Your task to perform on an android device: Search for flights from NYC to Buenos aires Image 0: 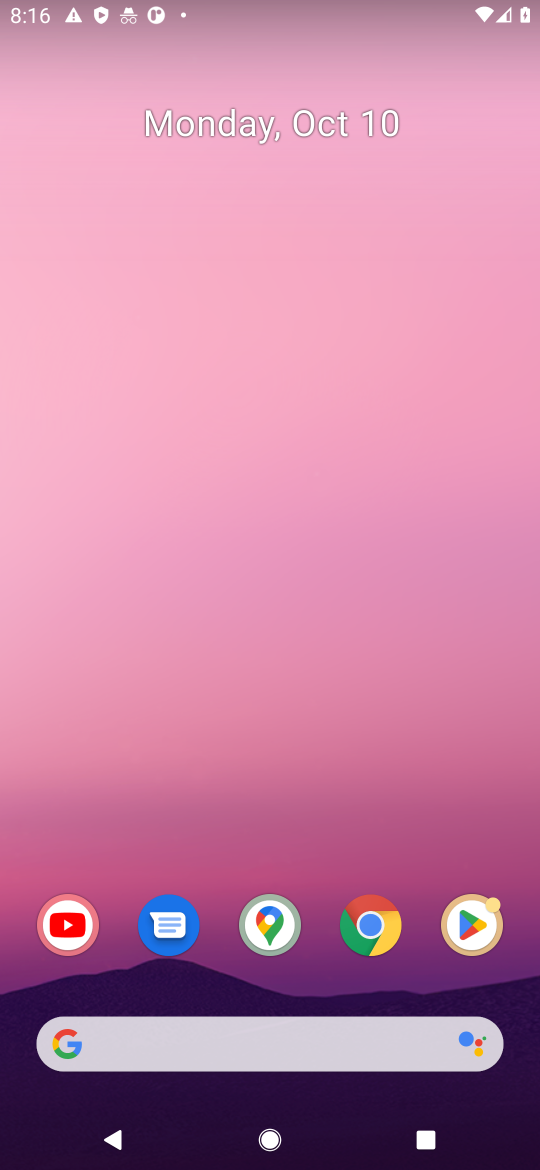
Step 0: drag from (315, 999) to (255, 89)
Your task to perform on an android device: Search for flights from NYC to Buenos aires Image 1: 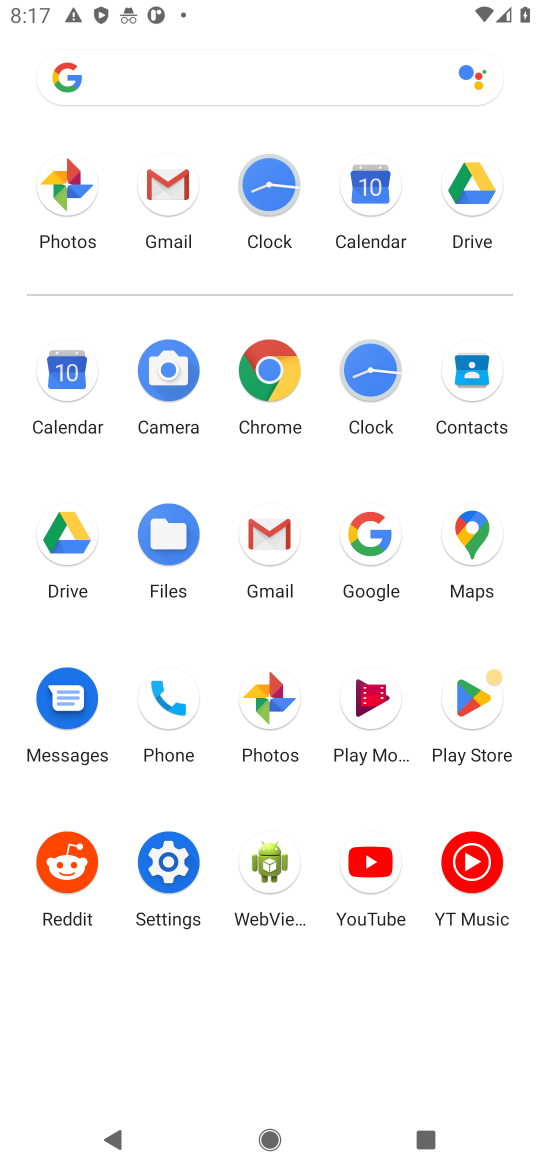
Step 1: click (272, 367)
Your task to perform on an android device: Search for flights from NYC to Buenos aires Image 2: 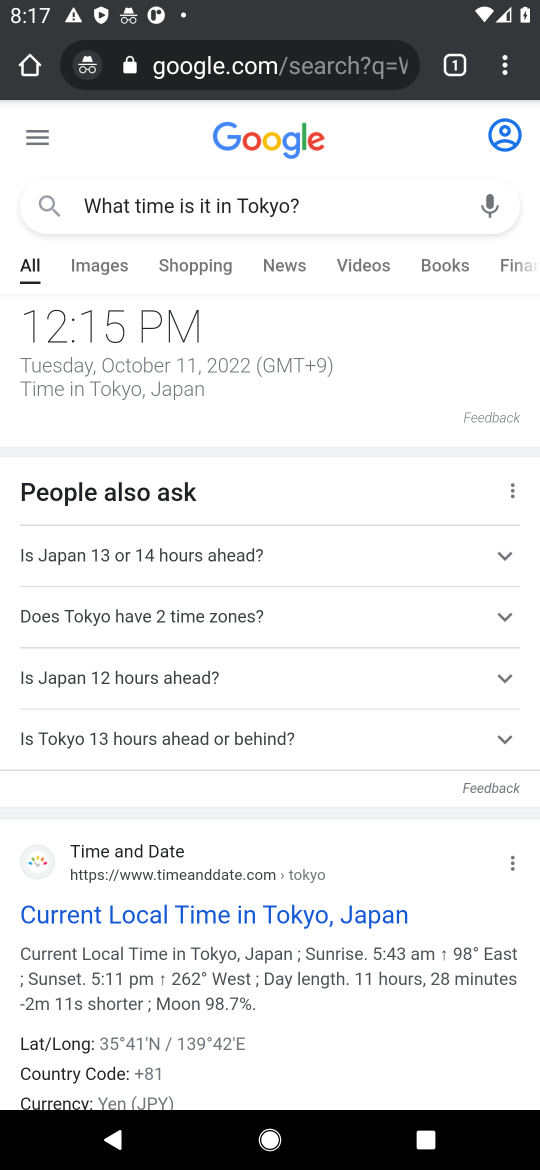
Step 2: click (281, 77)
Your task to perform on an android device: Search for flights from NYC to Buenos aires Image 3: 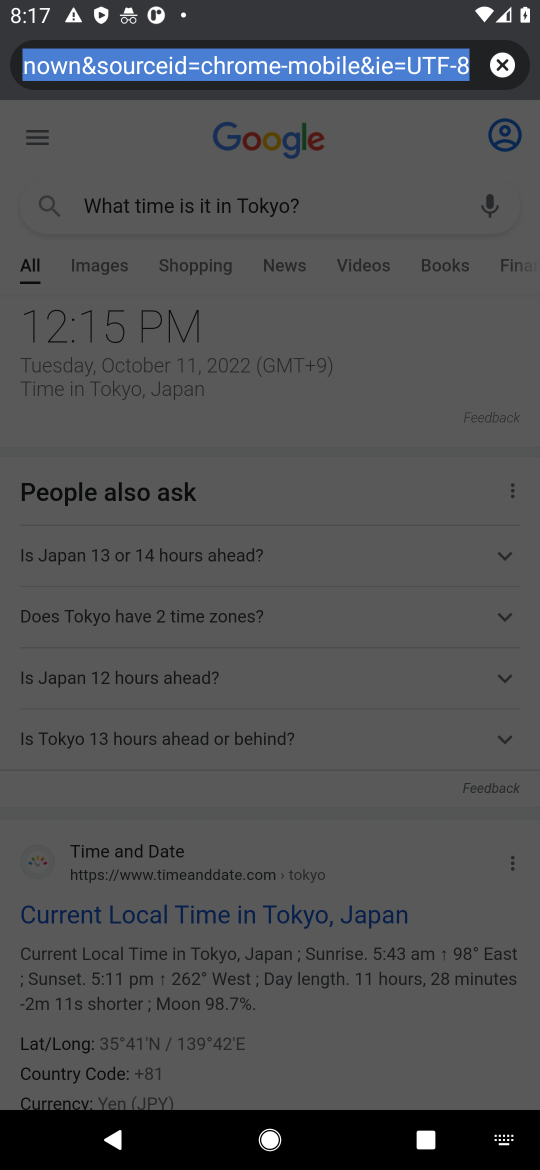
Step 3: type "flights from NYC to Buenos aires"
Your task to perform on an android device: Search for flights from NYC to Buenos aires Image 4: 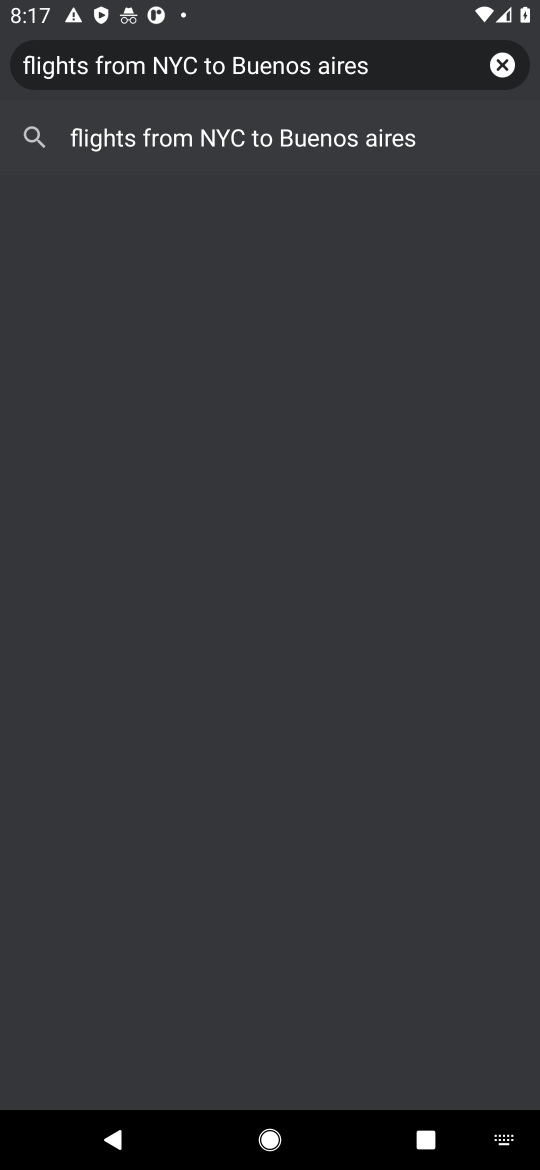
Step 4: press enter
Your task to perform on an android device: Search for flights from NYC to Buenos aires Image 5: 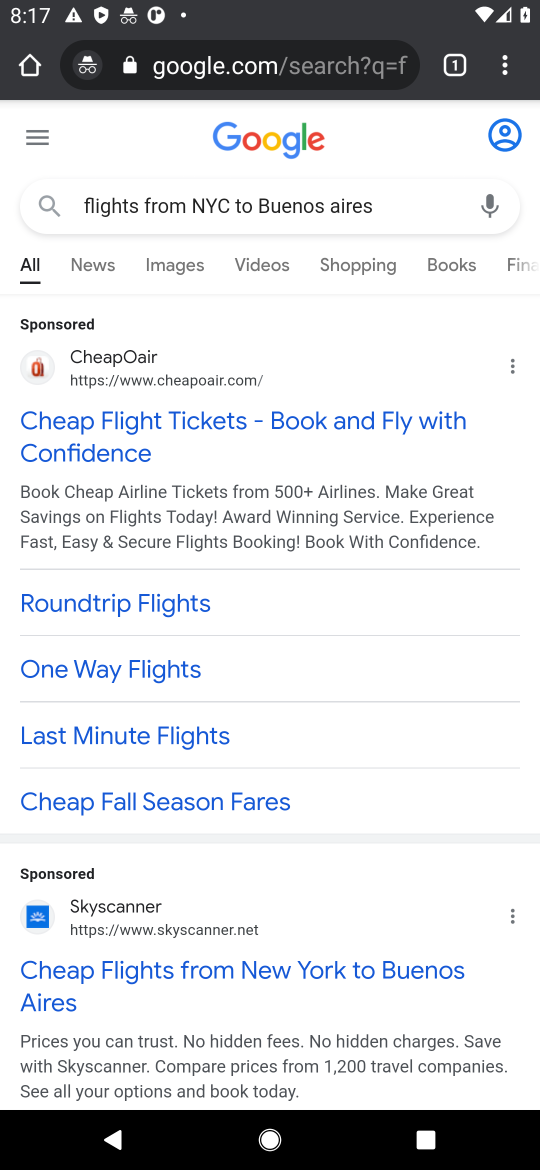
Step 5: task complete